Your task to perform on an android device: Is it going to rain today? Image 0: 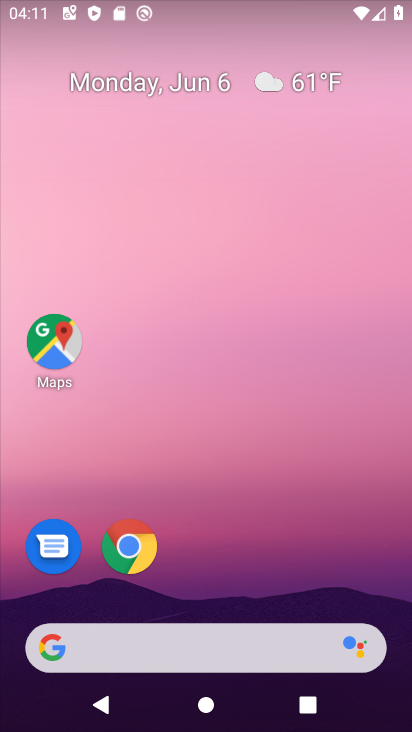
Step 0: click (56, 644)
Your task to perform on an android device: Is it going to rain today? Image 1: 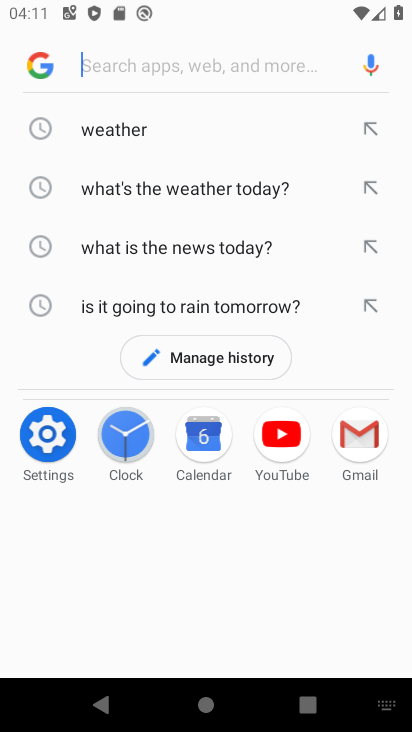
Step 1: type "rain today?"
Your task to perform on an android device: Is it going to rain today? Image 2: 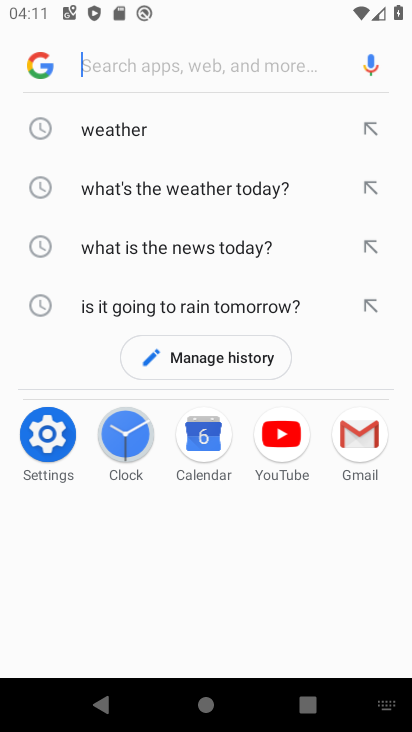
Step 2: click (216, 52)
Your task to perform on an android device: Is it going to rain today? Image 3: 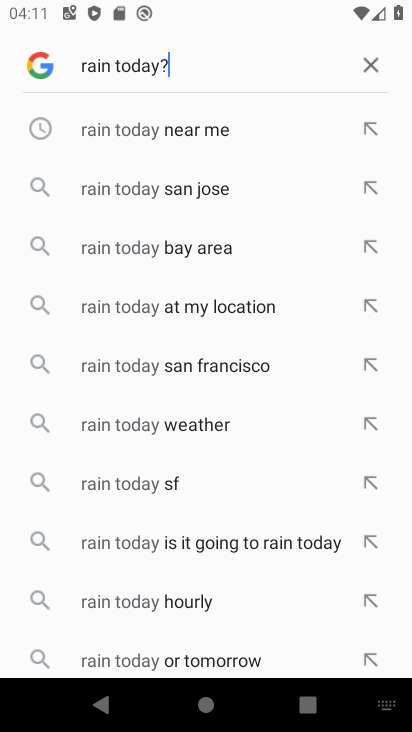
Step 3: click (373, 60)
Your task to perform on an android device: Is it going to rain today? Image 4: 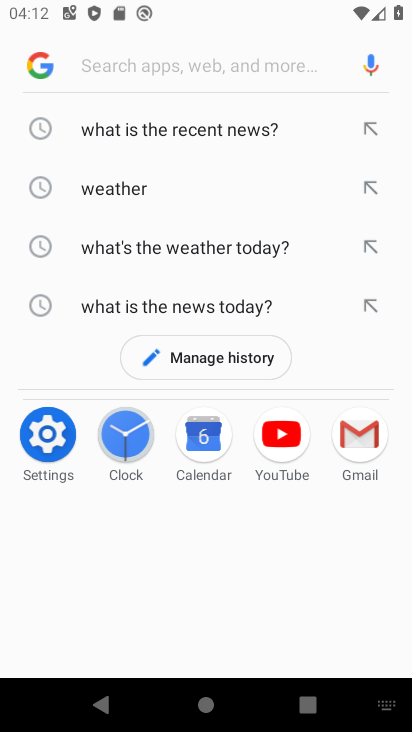
Step 4: type "rain today"
Your task to perform on an android device: Is it going to rain today? Image 5: 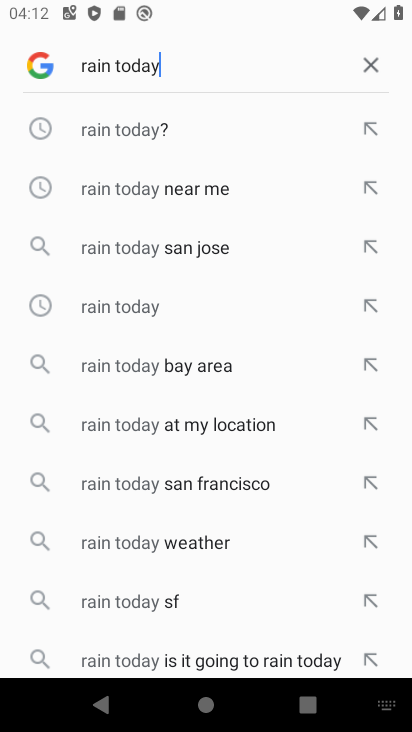
Step 5: click (121, 128)
Your task to perform on an android device: Is it going to rain today? Image 6: 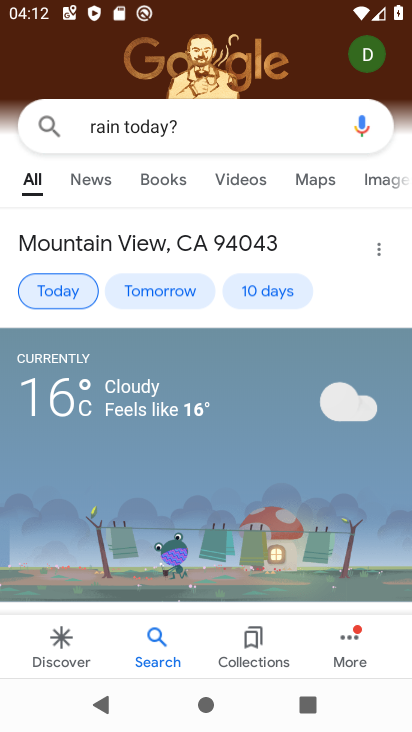
Step 6: task complete